Your task to perform on an android device: show emergency info Image 0: 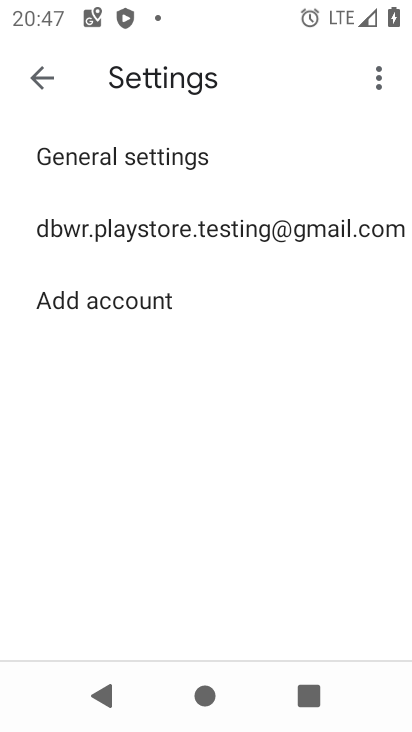
Step 0: press home button
Your task to perform on an android device: show emergency info Image 1: 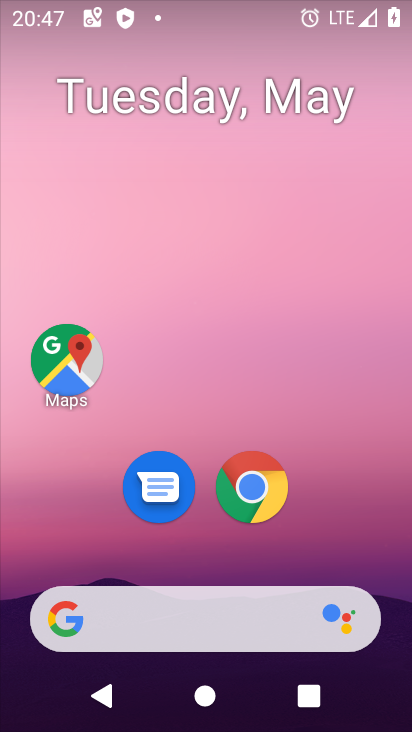
Step 1: drag from (343, 515) to (217, 53)
Your task to perform on an android device: show emergency info Image 2: 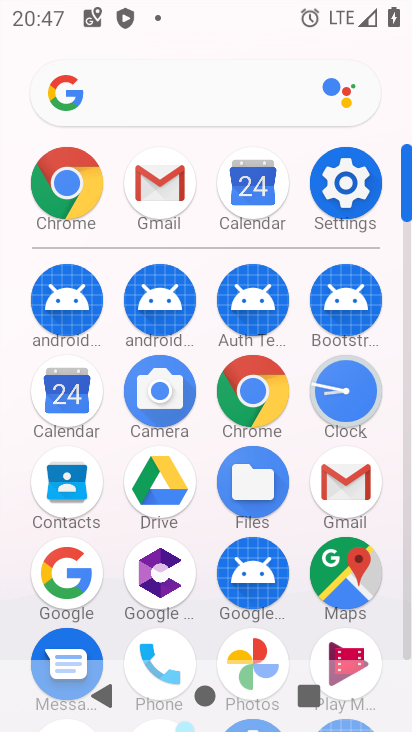
Step 2: click (345, 183)
Your task to perform on an android device: show emergency info Image 3: 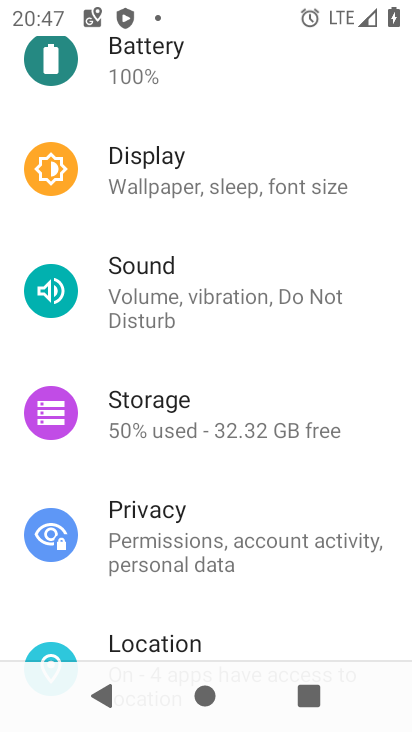
Step 3: drag from (257, 369) to (232, 17)
Your task to perform on an android device: show emergency info Image 4: 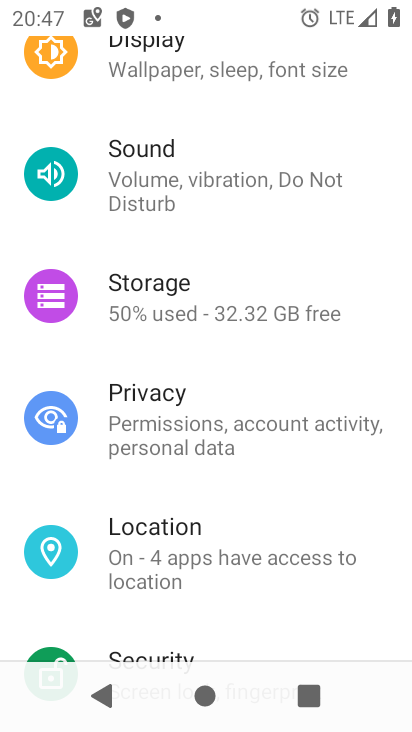
Step 4: drag from (265, 518) to (210, 145)
Your task to perform on an android device: show emergency info Image 5: 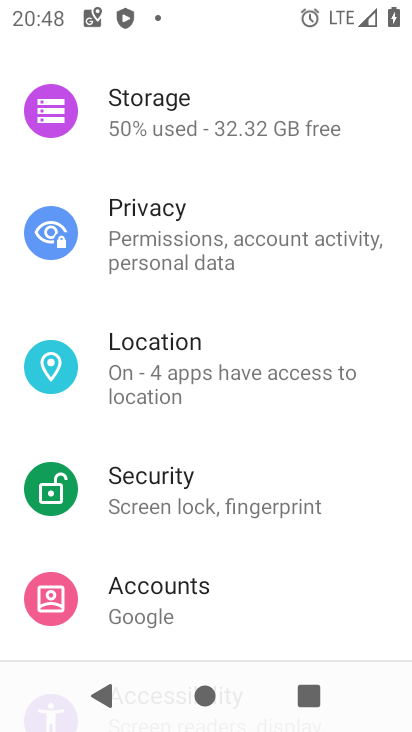
Step 5: drag from (256, 530) to (206, 109)
Your task to perform on an android device: show emergency info Image 6: 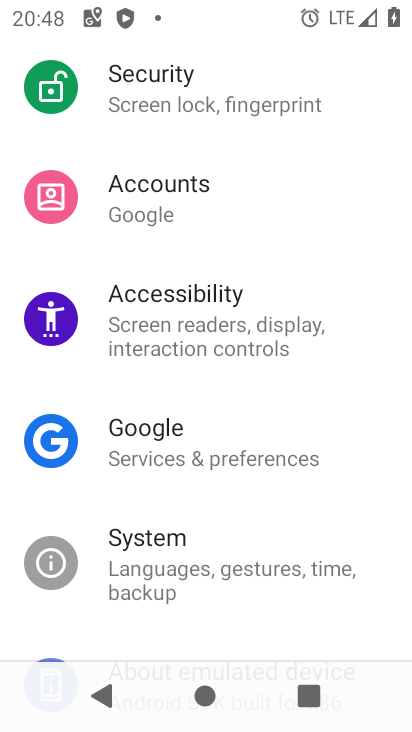
Step 6: drag from (223, 503) to (176, 161)
Your task to perform on an android device: show emergency info Image 7: 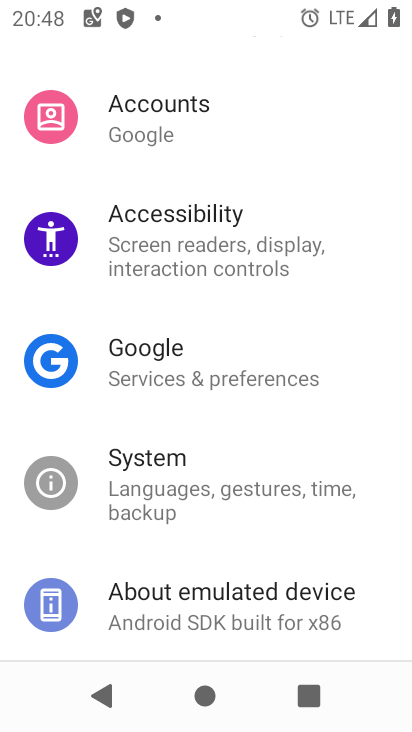
Step 7: drag from (193, 531) to (179, 251)
Your task to perform on an android device: show emergency info Image 8: 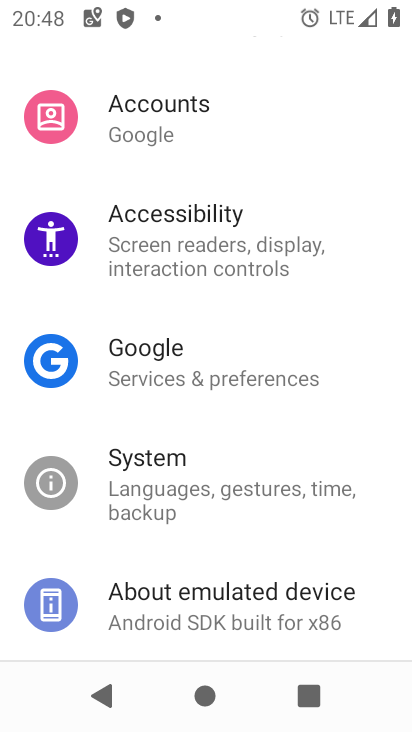
Step 8: click (220, 595)
Your task to perform on an android device: show emergency info Image 9: 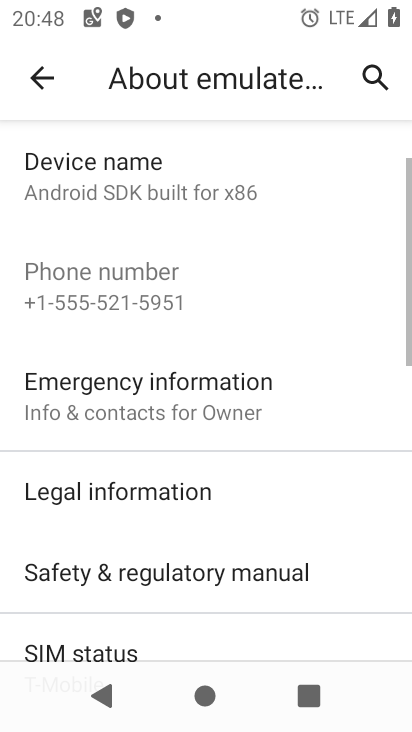
Step 9: click (168, 380)
Your task to perform on an android device: show emergency info Image 10: 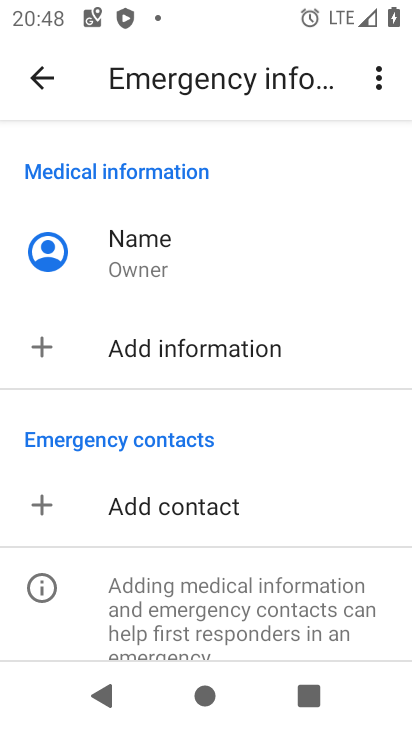
Step 10: task complete